Your task to perform on an android device: find photos in the google photos app Image 0: 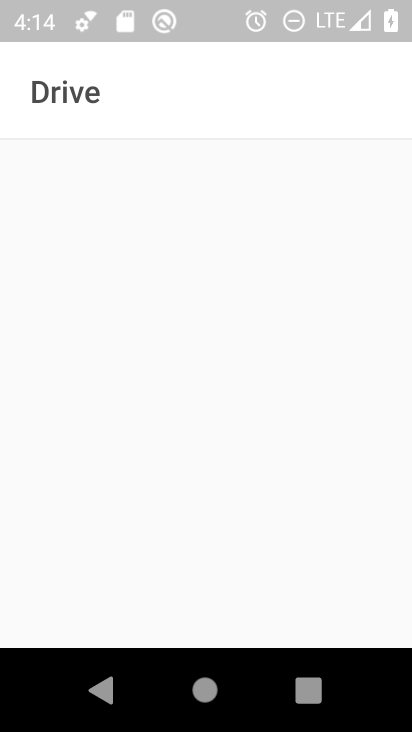
Step 0: press home button
Your task to perform on an android device: find photos in the google photos app Image 1: 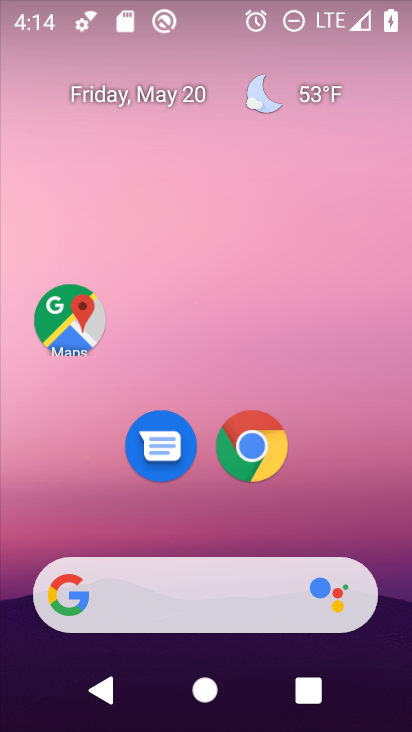
Step 1: drag from (360, 493) to (343, 71)
Your task to perform on an android device: find photos in the google photos app Image 2: 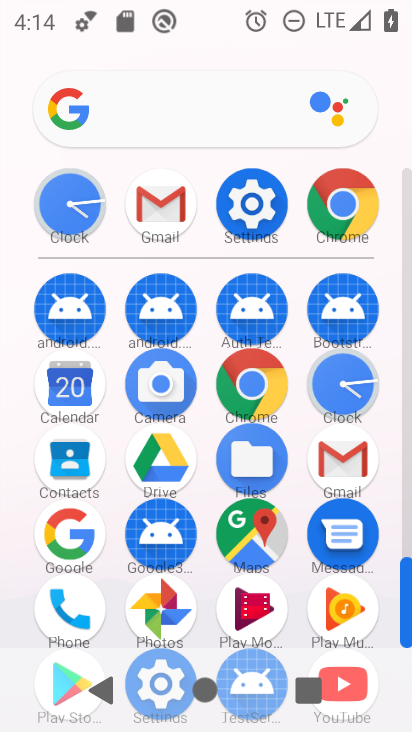
Step 2: click (149, 612)
Your task to perform on an android device: find photos in the google photos app Image 3: 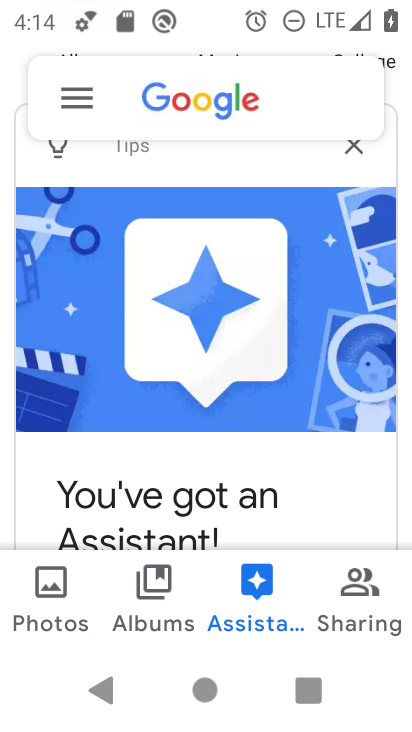
Step 3: click (52, 600)
Your task to perform on an android device: find photos in the google photos app Image 4: 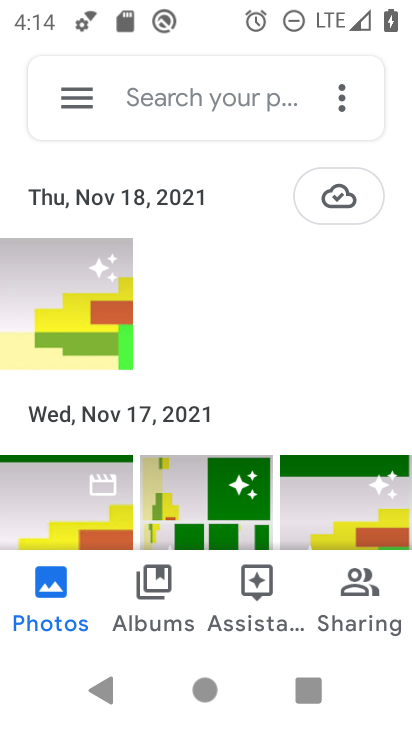
Step 4: task complete